Your task to perform on an android device: Open Google Image 0: 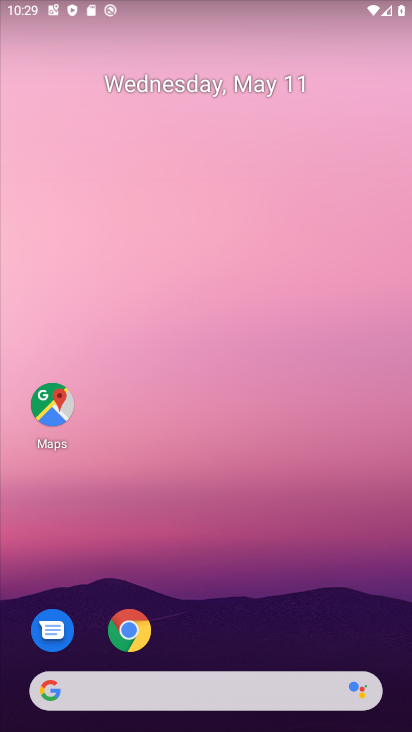
Step 0: drag from (212, 720) to (198, 151)
Your task to perform on an android device: Open Google Image 1: 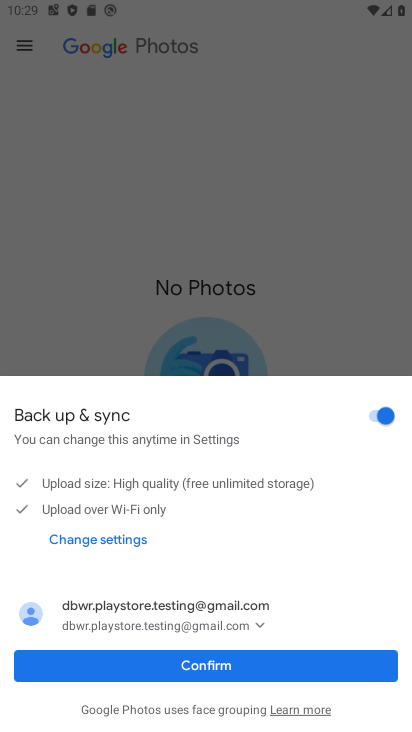
Step 1: press home button
Your task to perform on an android device: Open Google Image 2: 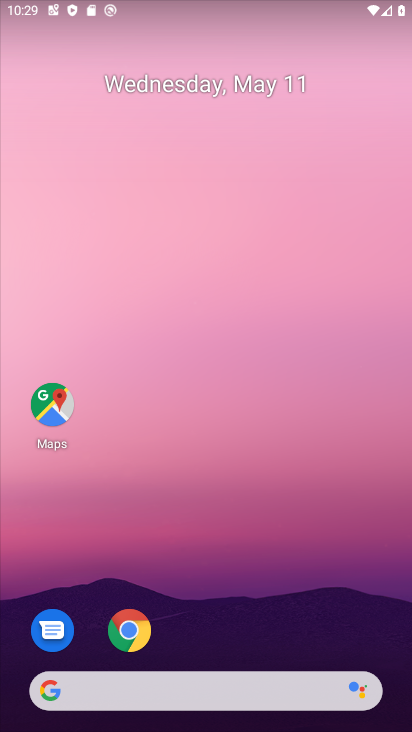
Step 2: drag from (216, 724) to (216, 179)
Your task to perform on an android device: Open Google Image 3: 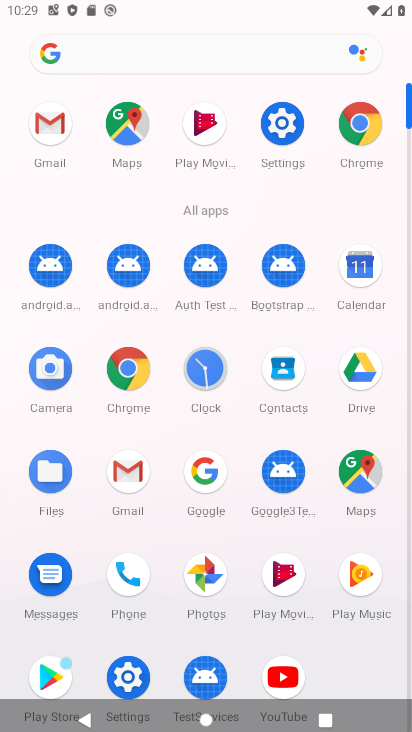
Step 3: click (202, 474)
Your task to perform on an android device: Open Google Image 4: 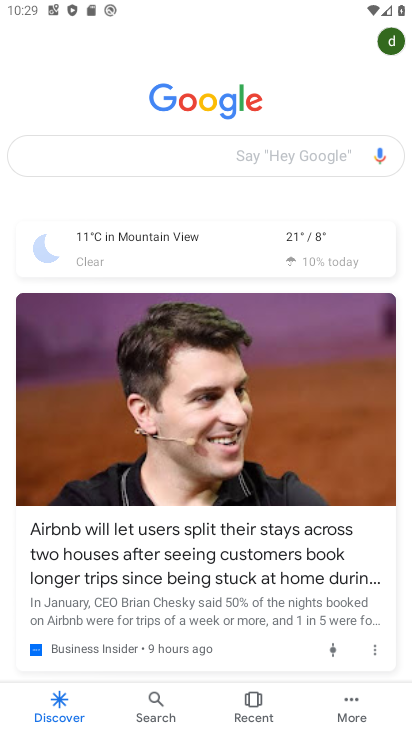
Step 4: task complete